Your task to perform on an android device: turn off location history Image 0: 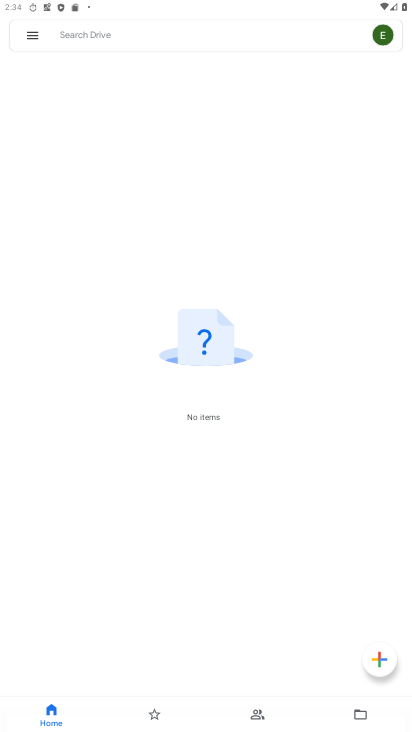
Step 0: press home button
Your task to perform on an android device: turn off location history Image 1: 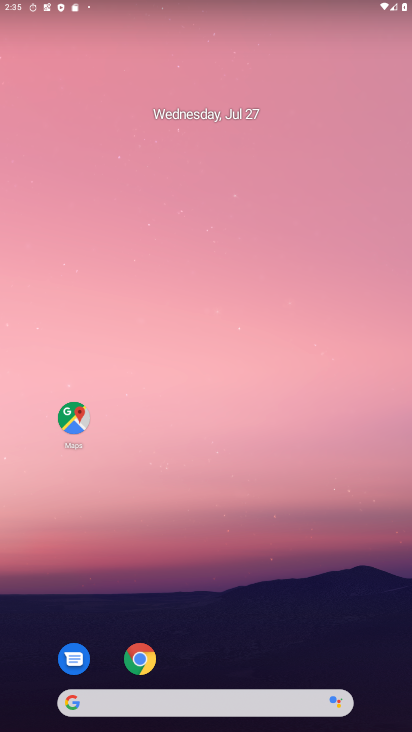
Step 1: drag from (192, 728) to (205, 16)
Your task to perform on an android device: turn off location history Image 2: 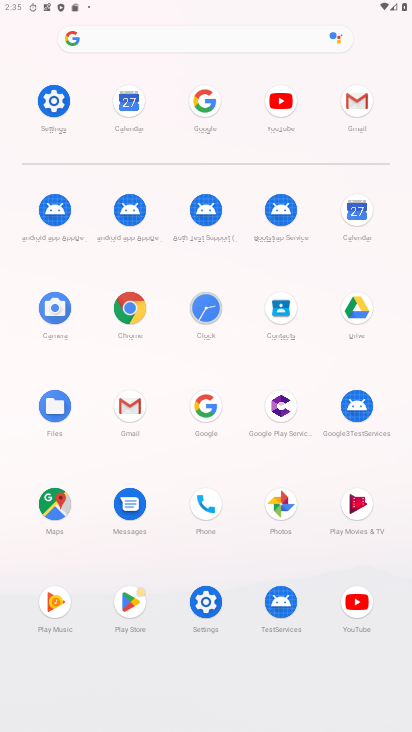
Step 2: click (59, 100)
Your task to perform on an android device: turn off location history Image 3: 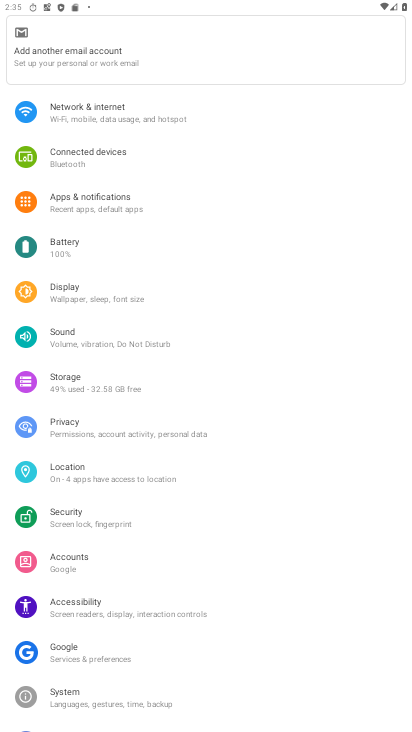
Step 3: click (65, 463)
Your task to perform on an android device: turn off location history Image 4: 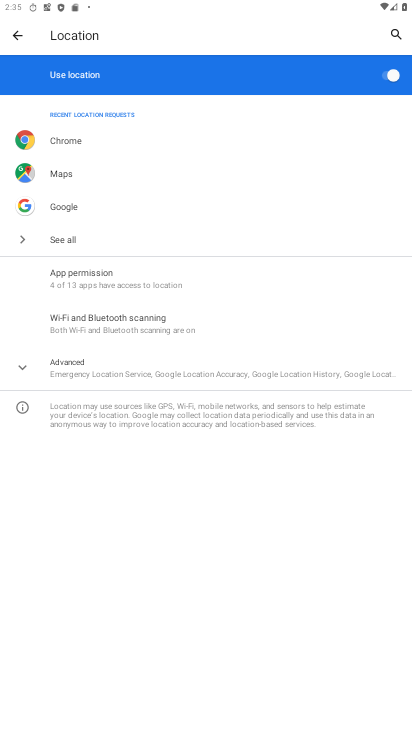
Step 4: click (76, 368)
Your task to perform on an android device: turn off location history Image 5: 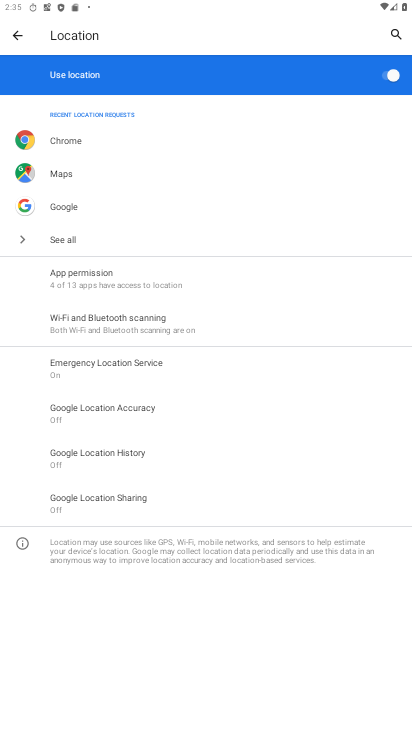
Step 5: click (134, 455)
Your task to perform on an android device: turn off location history Image 6: 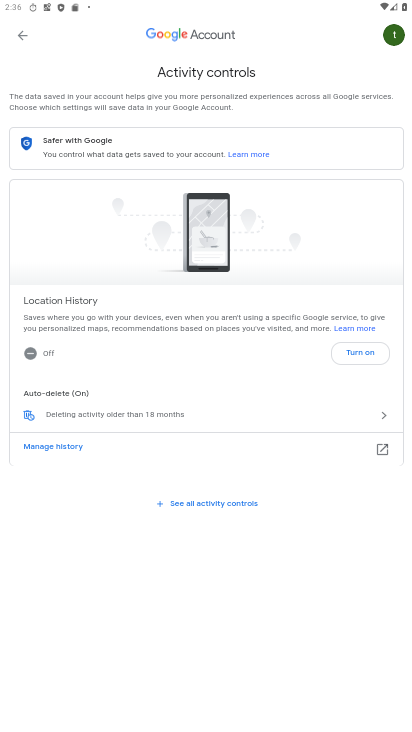
Step 6: task complete